Your task to perform on an android device: Open eBay Image 0: 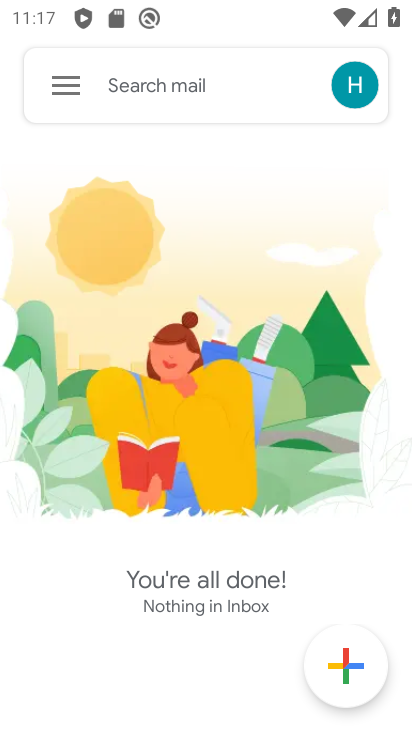
Step 0: press home button
Your task to perform on an android device: Open eBay Image 1: 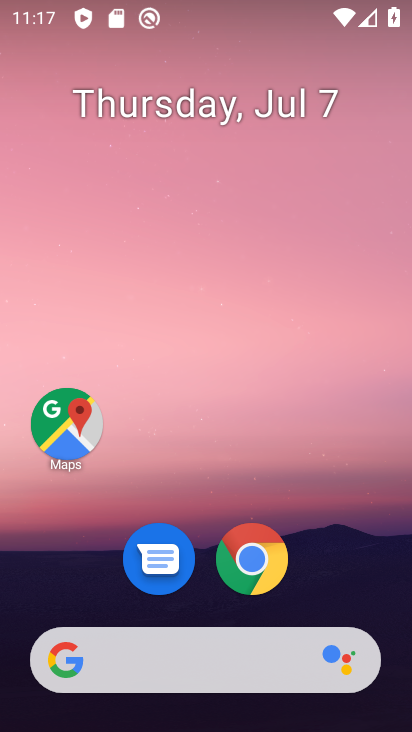
Step 1: drag from (367, 558) to (355, 67)
Your task to perform on an android device: Open eBay Image 2: 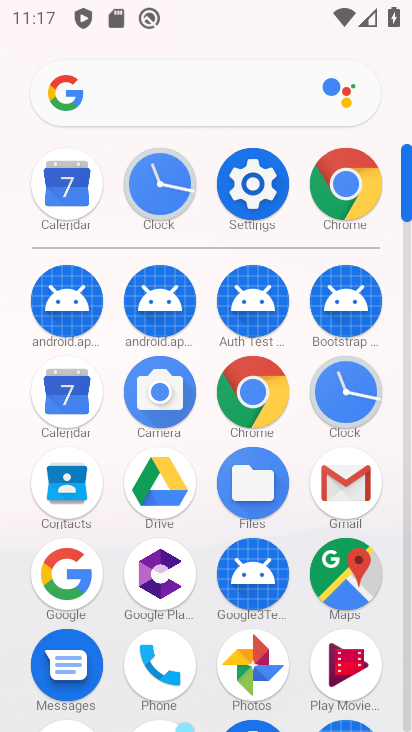
Step 2: click (268, 387)
Your task to perform on an android device: Open eBay Image 3: 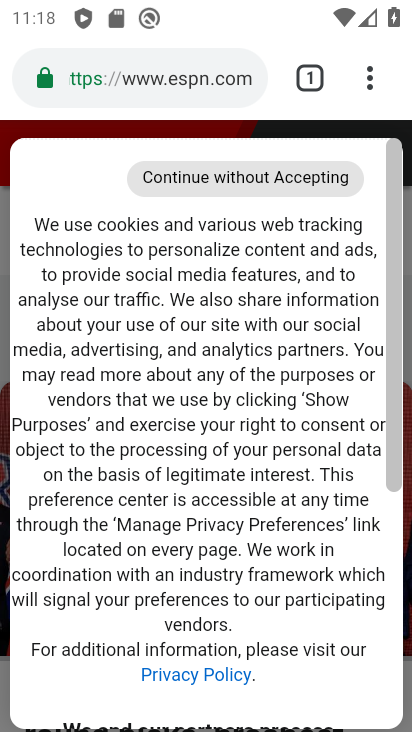
Step 3: click (196, 88)
Your task to perform on an android device: Open eBay Image 4: 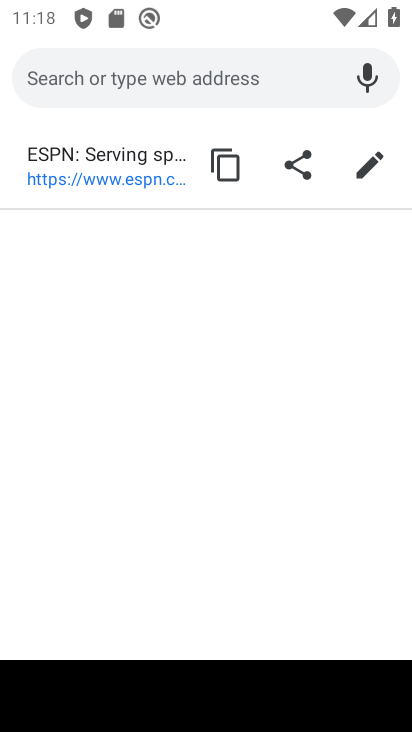
Step 4: type "ebay"
Your task to perform on an android device: Open eBay Image 5: 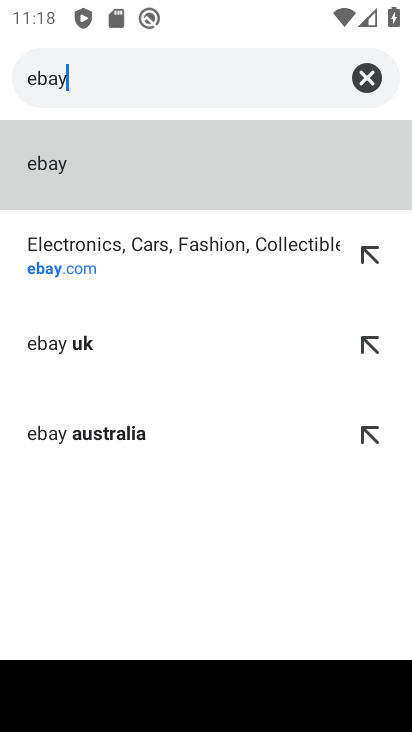
Step 5: click (190, 169)
Your task to perform on an android device: Open eBay Image 6: 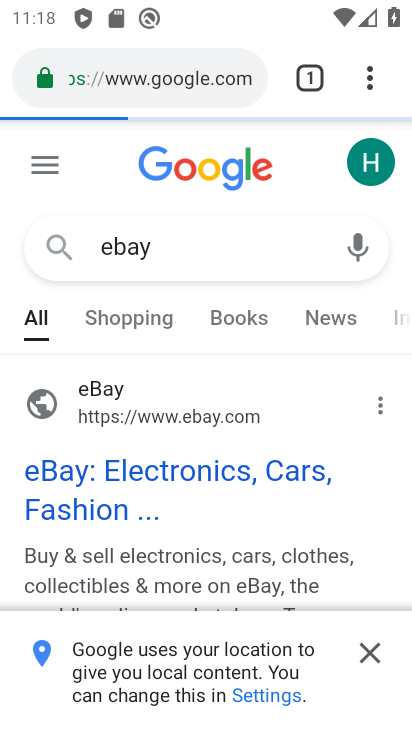
Step 6: task complete